Your task to perform on an android device: Open calendar and show me the fourth week of next month Image 0: 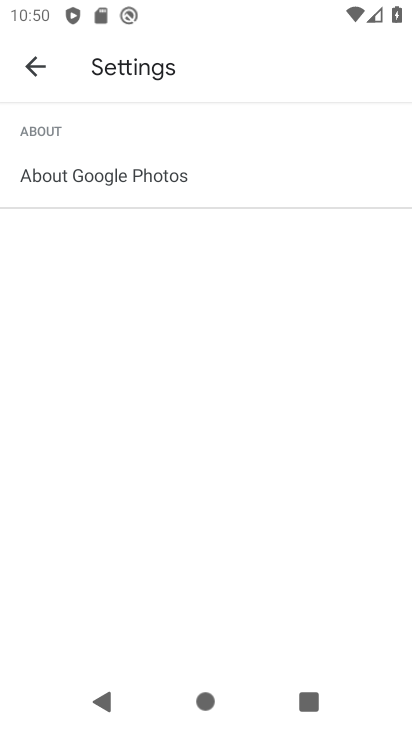
Step 0: press home button
Your task to perform on an android device: Open calendar and show me the fourth week of next month Image 1: 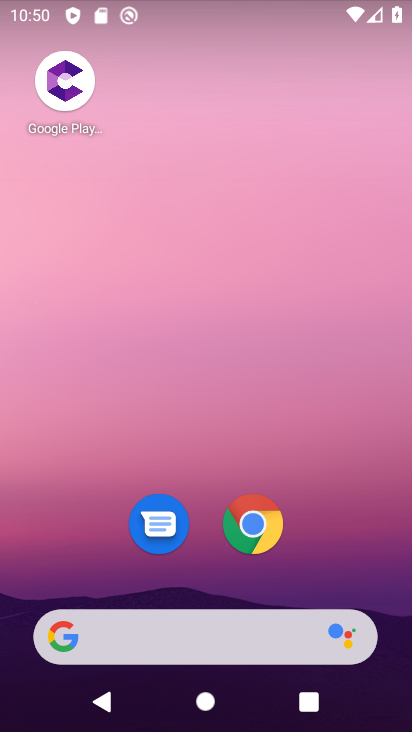
Step 1: drag from (216, 469) to (232, 5)
Your task to perform on an android device: Open calendar and show me the fourth week of next month Image 2: 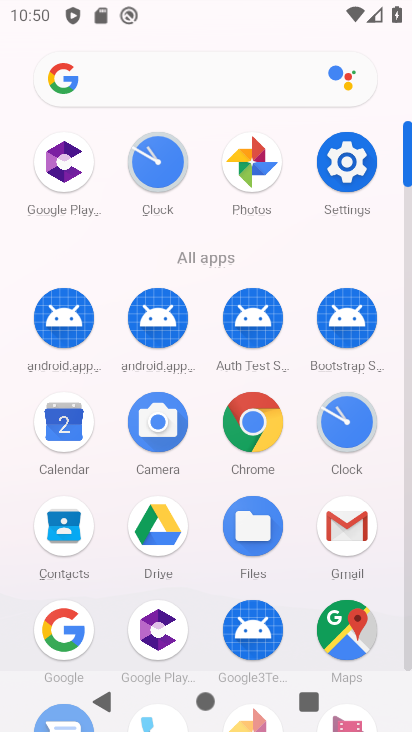
Step 2: click (75, 423)
Your task to perform on an android device: Open calendar and show me the fourth week of next month Image 3: 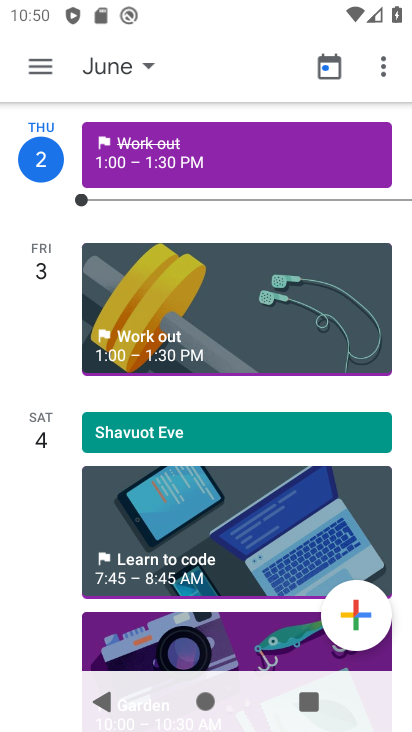
Step 3: click (46, 67)
Your task to perform on an android device: Open calendar and show me the fourth week of next month Image 4: 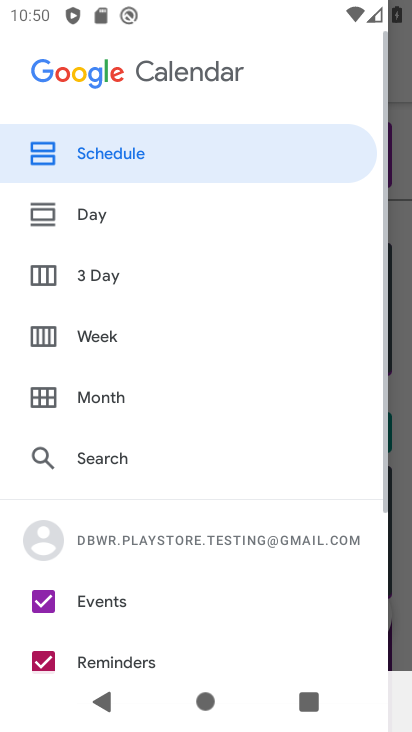
Step 4: click (97, 393)
Your task to perform on an android device: Open calendar and show me the fourth week of next month Image 5: 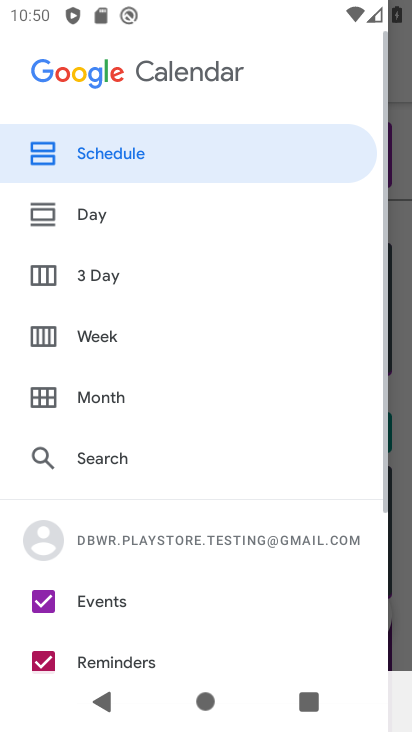
Step 5: click (53, 392)
Your task to perform on an android device: Open calendar and show me the fourth week of next month Image 6: 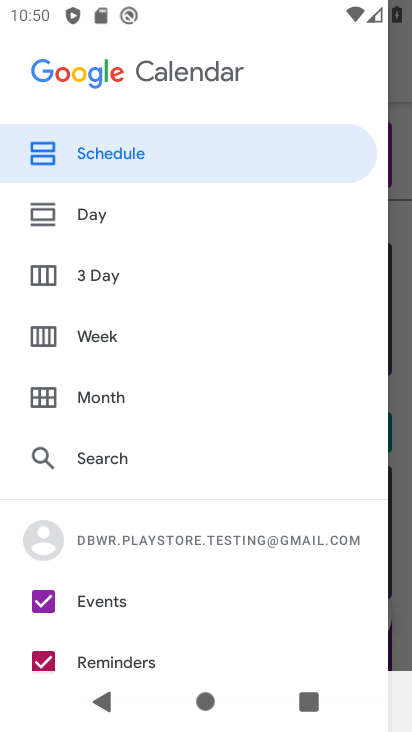
Step 6: click (49, 396)
Your task to perform on an android device: Open calendar and show me the fourth week of next month Image 7: 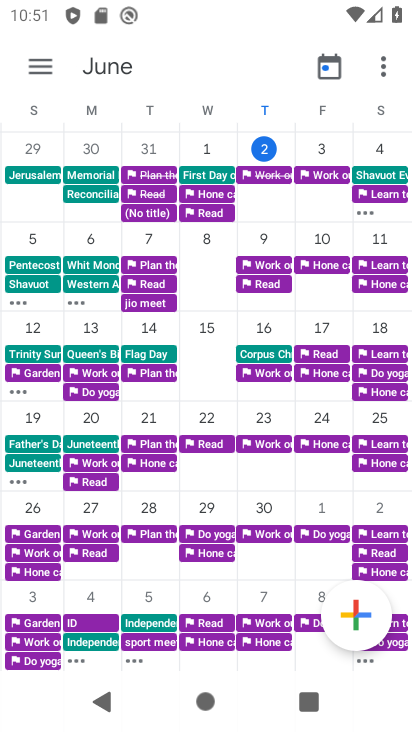
Step 7: click (40, 502)
Your task to perform on an android device: Open calendar and show me the fourth week of next month Image 8: 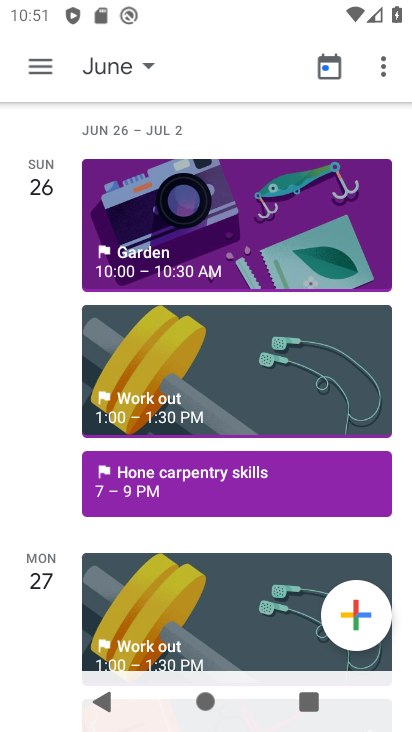
Step 8: click (40, 59)
Your task to perform on an android device: Open calendar and show me the fourth week of next month Image 9: 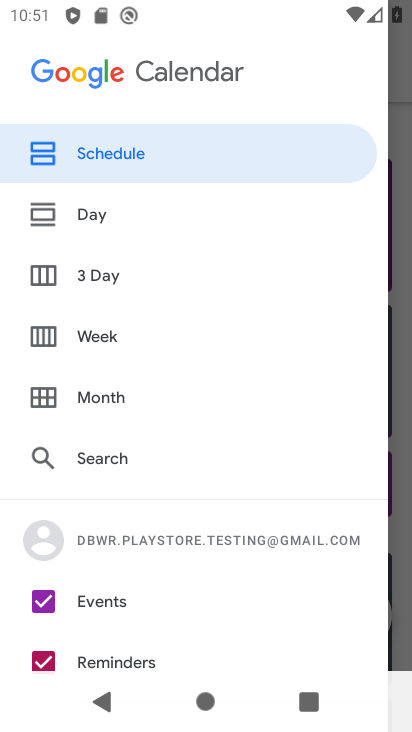
Step 9: click (46, 335)
Your task to perform on an android device: Open calendar and show me the fourth week of next month Image 10: 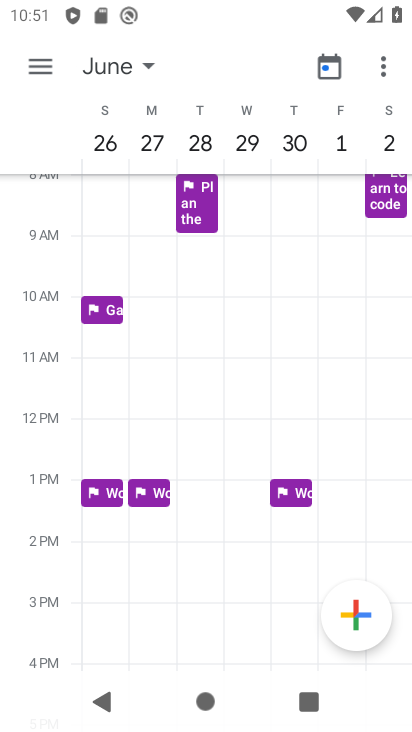
Step 10: task complete